Your task to perform on an android device: Open the phone app and click the voicemail tab. Image 0: 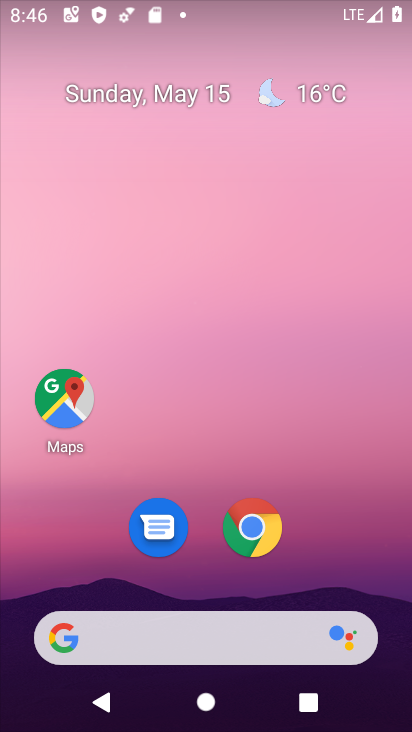
Step 0: drag from (381, 608) to (411, 517)
Your task to perform on an android device: Open the phone app and click the voicemail tab. Image 1: 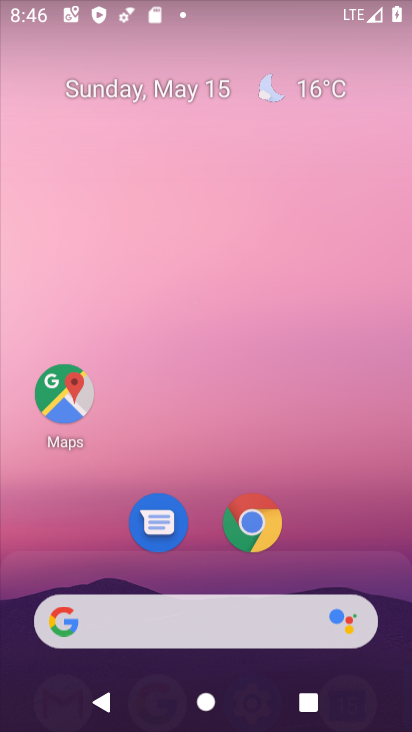
Step 1: drag from (409, 516) to (406, 450)
Your task to perform on an android device: Open the phone app and click the voicemail tab. Image 2: 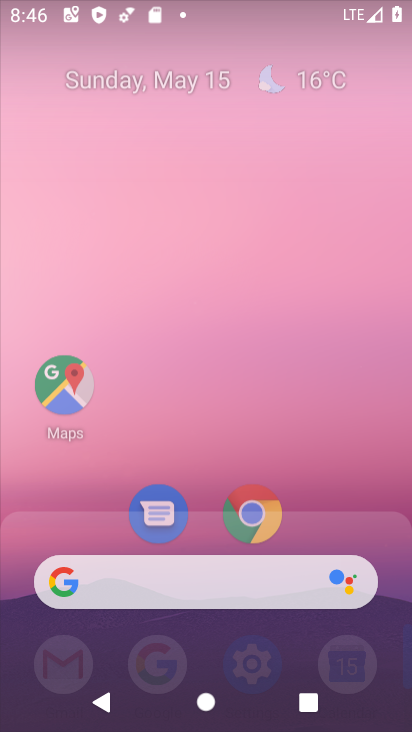
Step 2: drag from (331, 549) to (393, 22)
Your task to perform on an android device: Open the phone app and click the voicemail tab. Image 3: 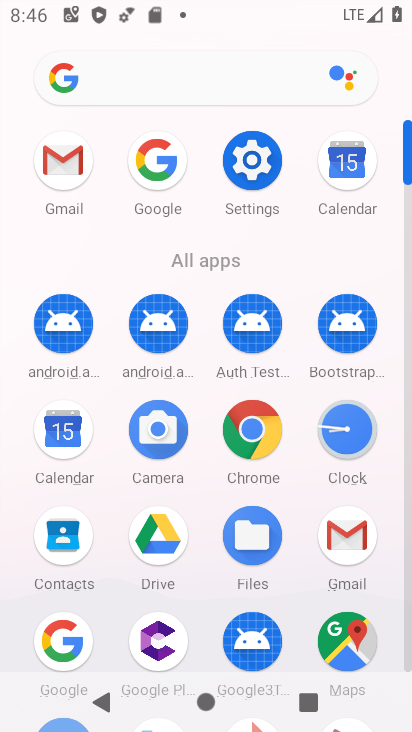
Step 3: drag from (396, 559) to (399, 374)
Your task to perform on an android device: Open the phone app and click the voicemail tab. Image 4: 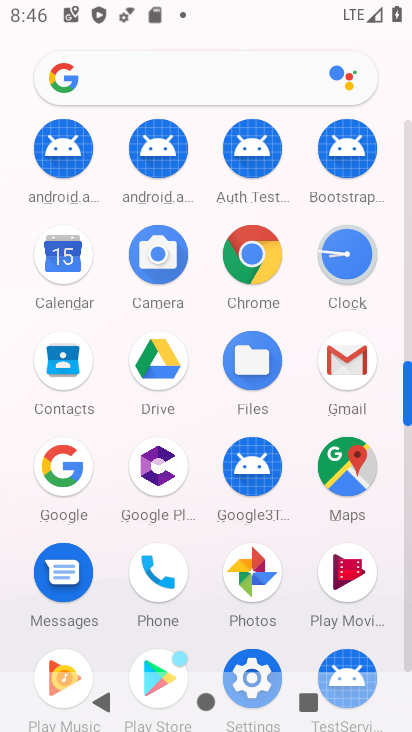
Step 4: click (156, 575)
Your task to perform on an android device: Open the phone app and click the voicemail tab. Image 5: 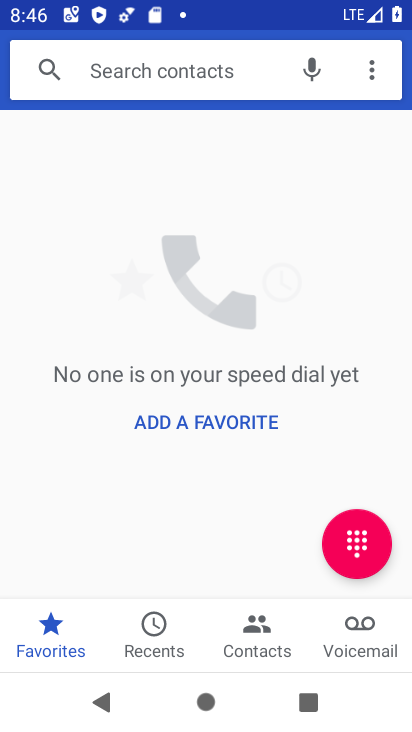
Step 5: click (358, 646)
Your task to perform on an android device: Open the phone app and click the voicemail tab. Image 6: 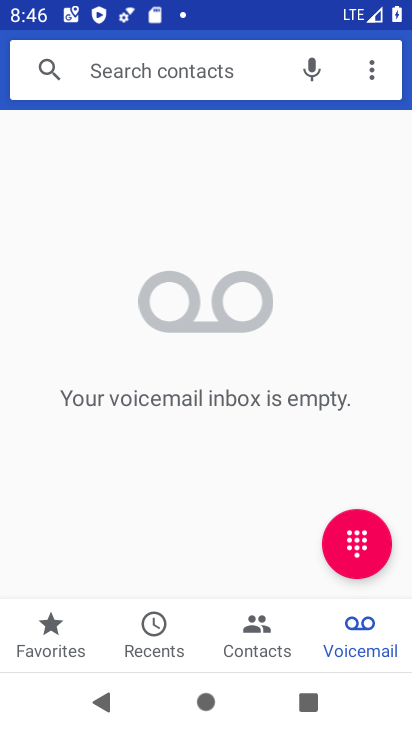
Step 6: task complete